Your task to perform on an android device: open device folders in google photos Image 0: 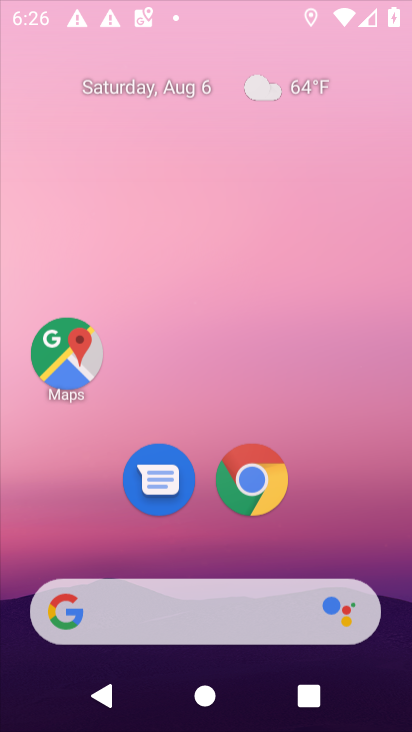
Step 0: drag from (218, 504) to (253, 163)
Your task to perform on an android device: open device folders in google photos Image 1: 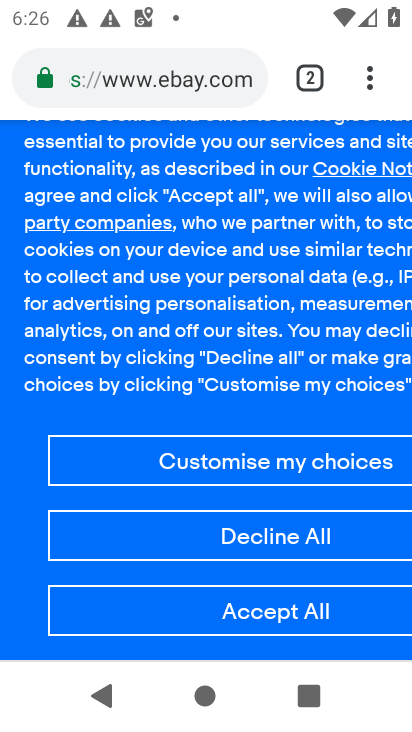
Step 1: press back button
Your task to perform on an android device: open device folders in google photos Image 2: 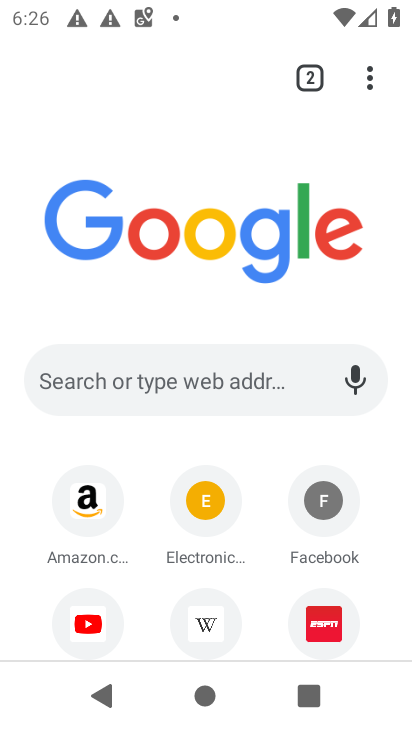
Step 2: press back button
Your task to perform on an android device: open device folders in google photos Image 3: 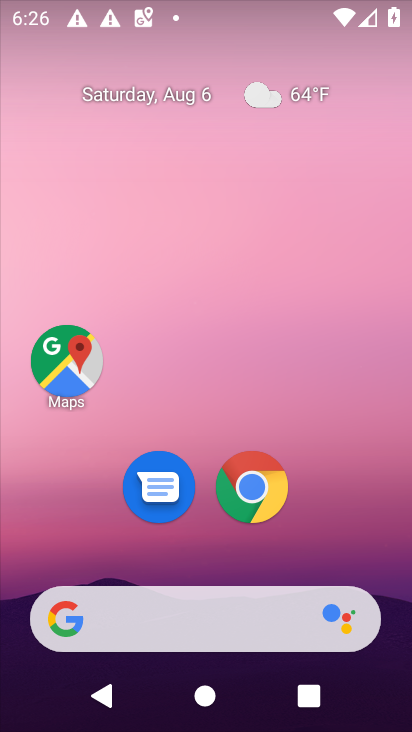
Step 3: drag from (182, 587) to (265, 54)
Your task to perform on an android device: open device folders in google photos Image 4: 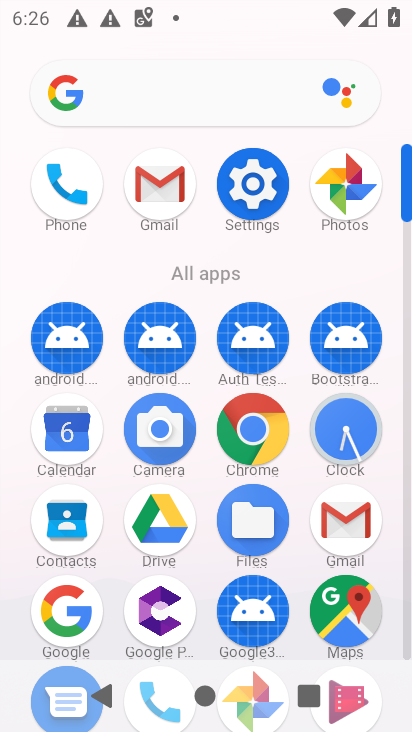
Step 4: drag from (221, 652) to (262, 360)
Your task to perform on an android device: open device folders in google photos Image 5: 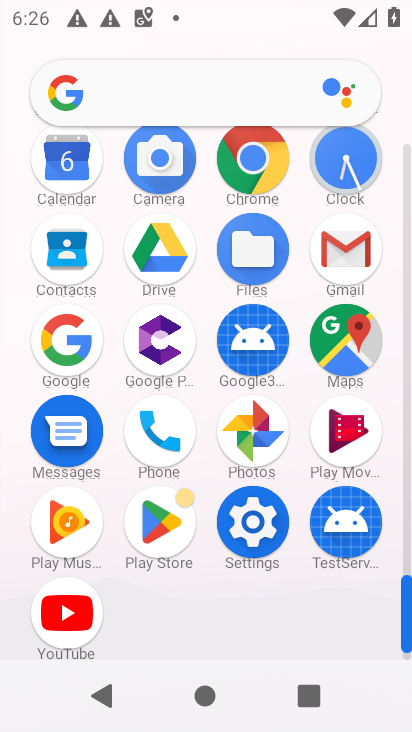
Step 5: click (261, 441)
Your task to perform on an android device: open device folders in google photos Image 6: 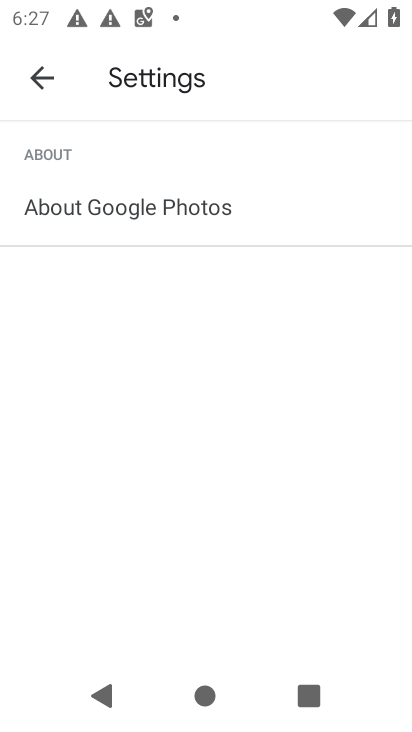
Step 6: press back button
Your task to perform on an android device: open device folders in google photos Image 7: 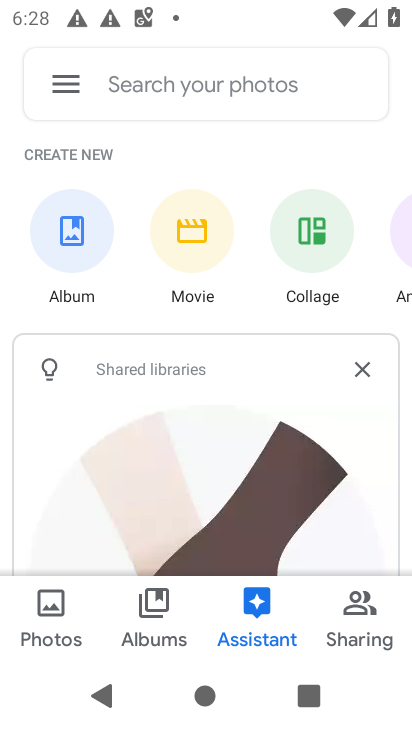
Step 7: click (38, 85)
Your task to perform on an android device: open device folders in google photos Image 8: 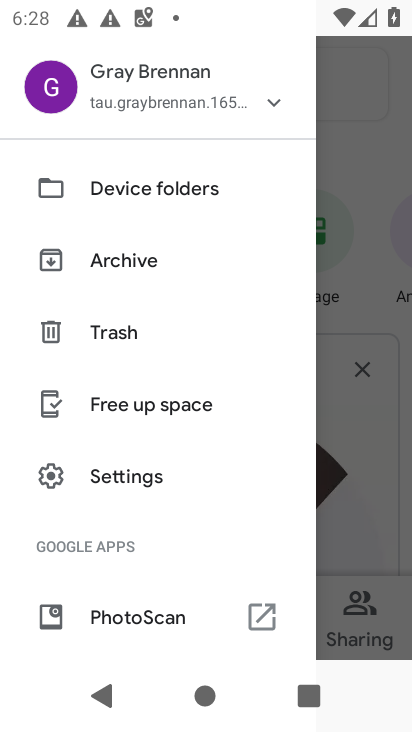
Step 8: click (162, 197)
Your task to perform on an android device: open device folders in google photos Image 9: 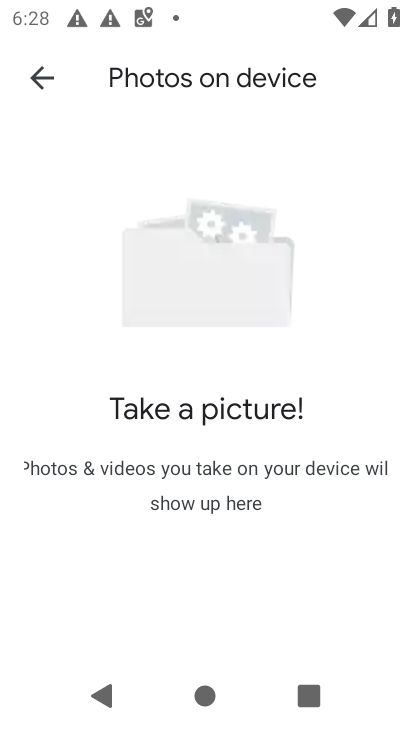
Step 9: task complete